Your task to perform on an android device: Search for Italian restaurants on Maps Image 0: 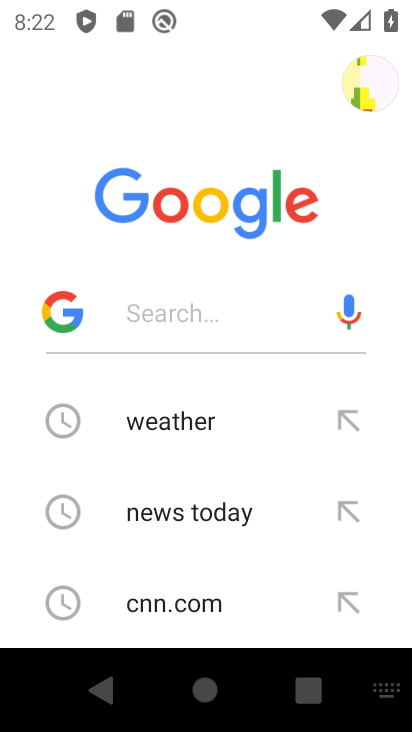
Step 0: press home button
Your task to perform on an android device: Search for Italian restaurants on Maps Image 1: 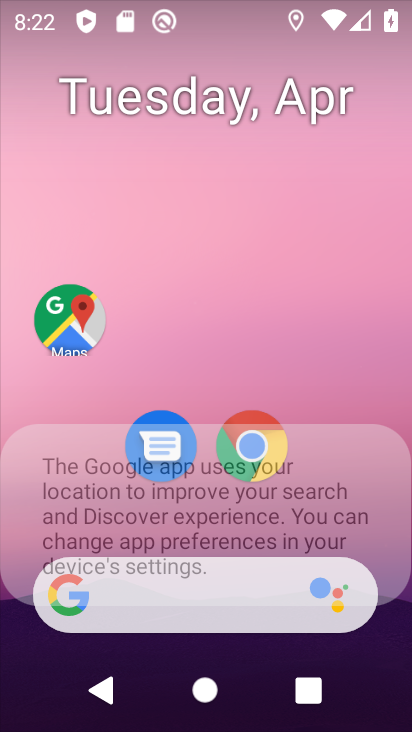
Step 1: click (52, 313)
Your task to perform on an android device: Search for Italian restaurants on Maps Image 2: 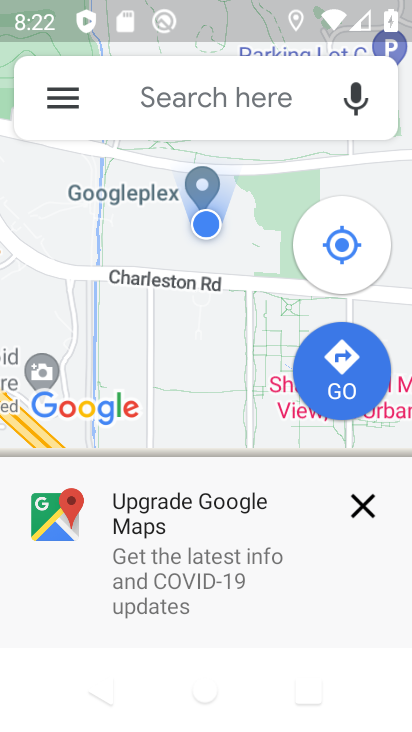
Step 2: click (241, 92)
Your task to perform on an android device: Search for Italian restaurants on Maps Image 3: 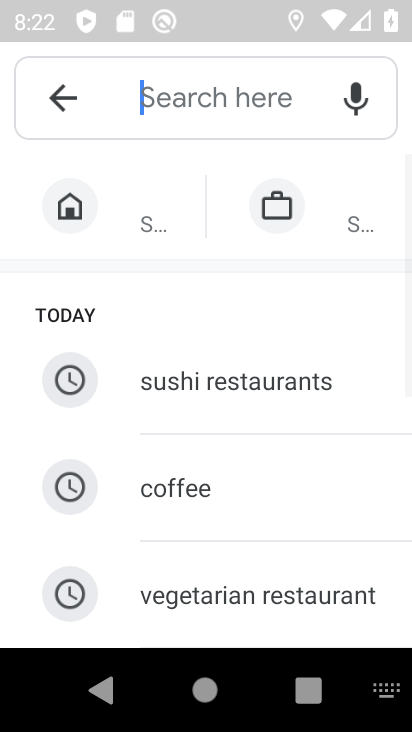
Step 3: drag from (214, 583) to (197, 208)
Your task to perform on an android device: Search for Italian restaurants on Maps Image 4: 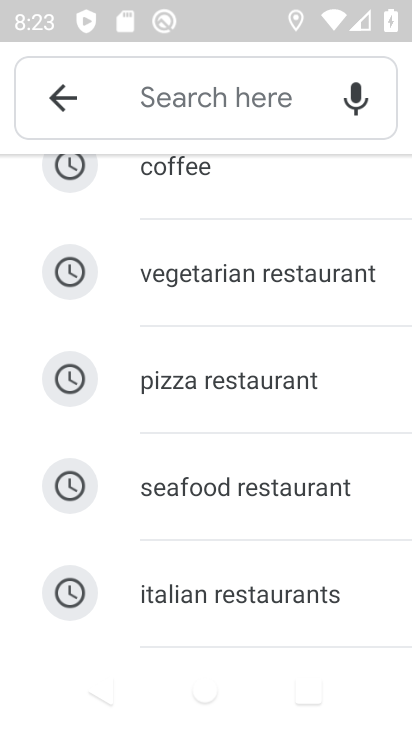
Step 4: click (174, 595)
Your task to perform on an android device: Search for Italian restaurants on Maps Image 5: 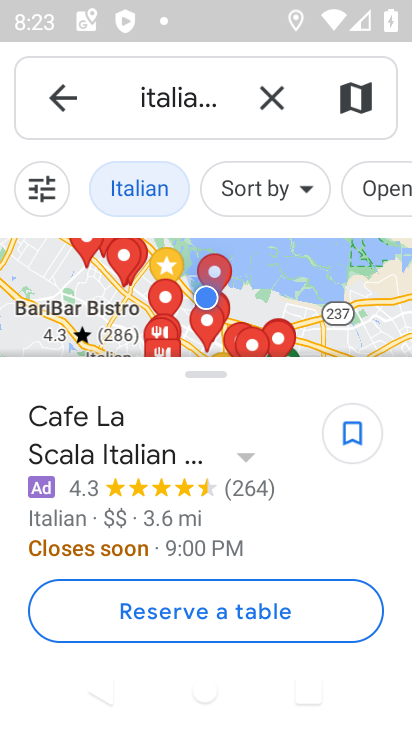
Step 5: task complete